Your task to perform on an android device: Search for sushi restaurants on Maps Image 0: 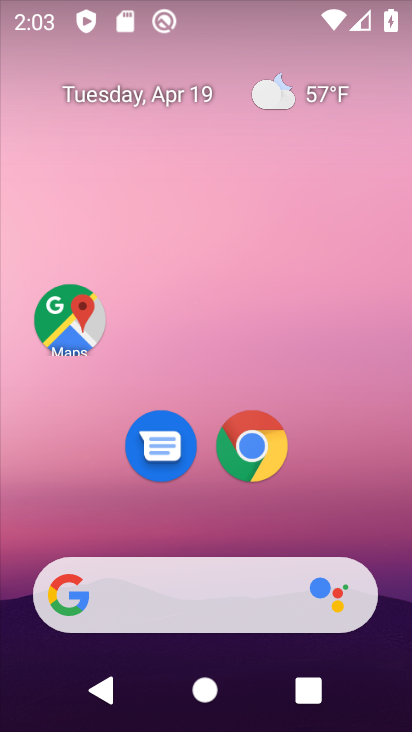
Step 0: drag from (360, 347) to (33, 2)
Your task to perform on an android device: Search for sushi restaurants on Maps Image 1: 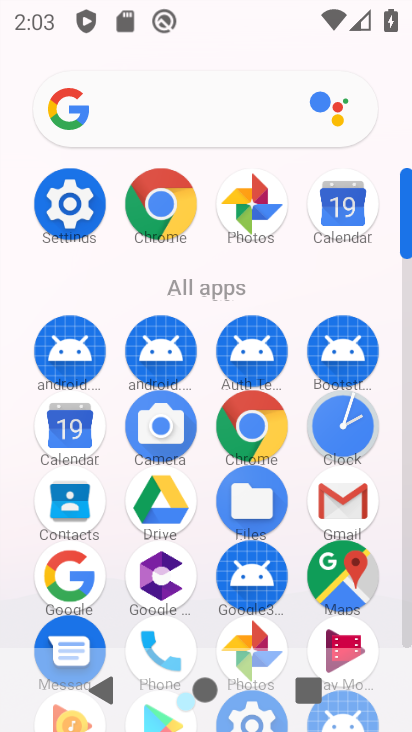
Step 1: click (361, 565)
Your task to perform on an android device: Search for sushi restaurants on Maps Image 2: 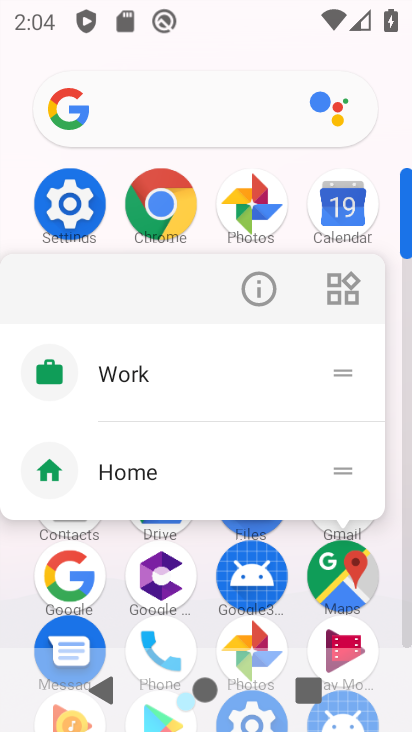
Step 2: press back button
Your task to perform on an android device: Search for sushi restaurants on Maps Image 3: 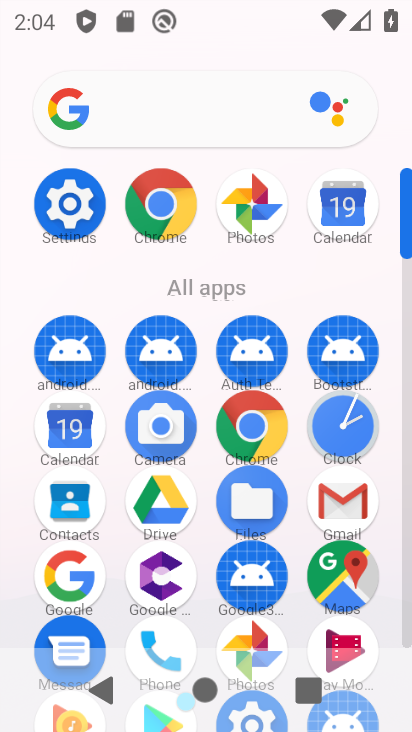
Step 3: click (352, 576)
Your task to perform on an android device: Search for sushi restaurants on Maps Image 4: 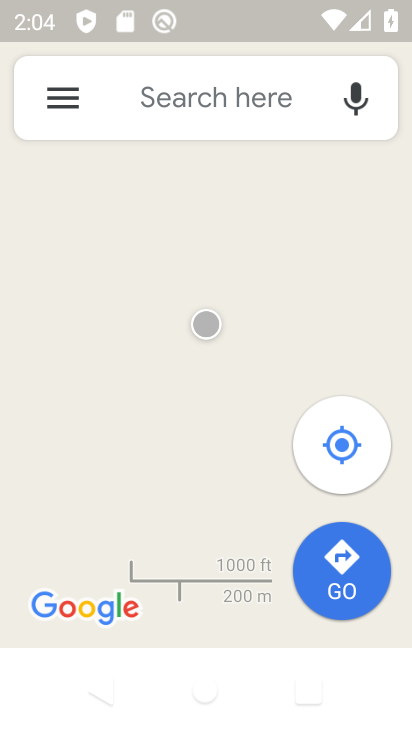
Step 4: click (201, 100)
Your task to perform on an android device: Search for sushi restaurants on Maps Image 5: 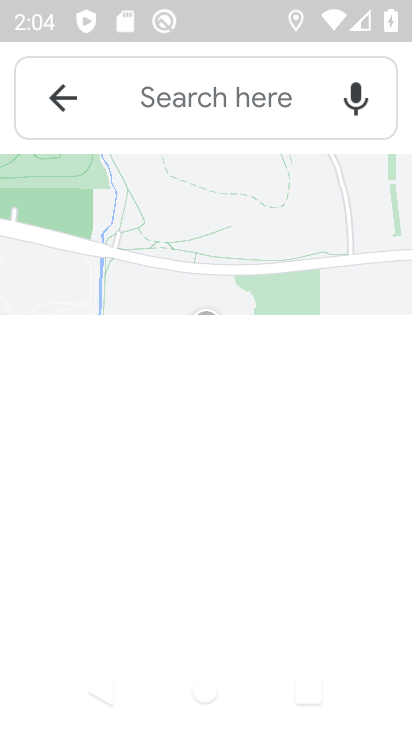
Step 5: click (201, 101)
Your task to perform on an android device: Search for sushi restaurants on Maps Image 6: 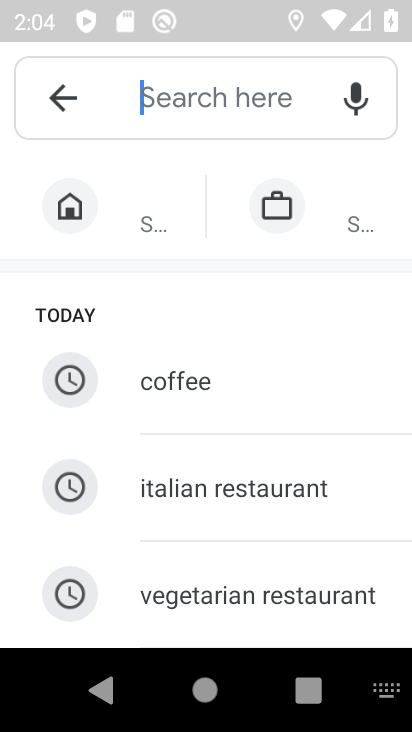
Step 6: drag from (334, 579) to (300, 181)
Your task to perform on an android device: Search for sushi restaurants on Maps Image 7: 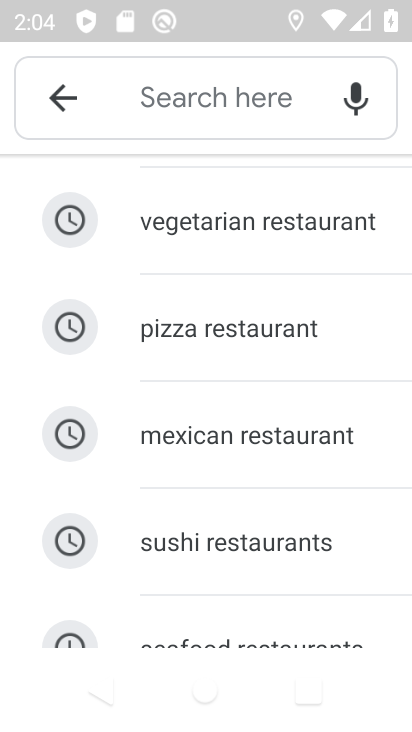
Step 7: click (297, 534)
Your task to perform on an android device: Search for sushi restaurants on Maps Image 8: 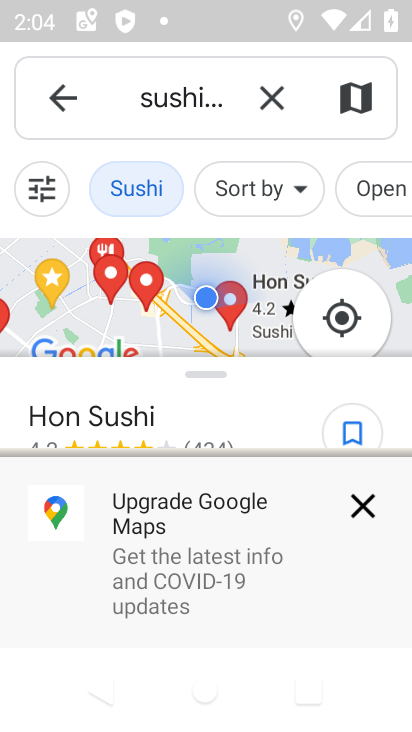
Step 8: task complete